Your task to perform on an android device: turn on the 24-hour format for clock Image 0: 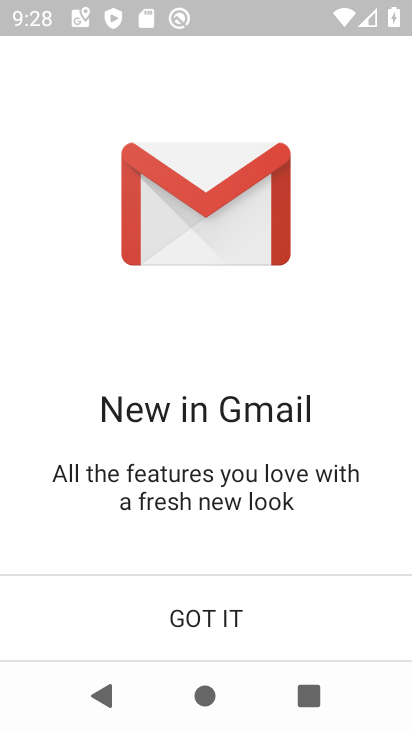
Step 0: press home button
Your task to perform on an android device: turn on the 24-hour format for clock Image 1: 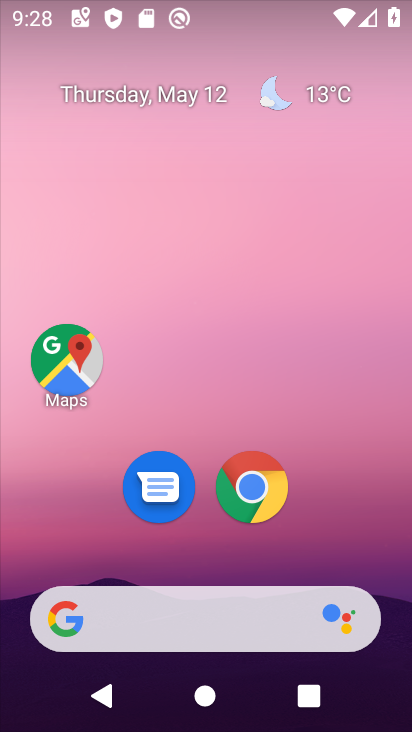
Step 1: drag from (245, 366) to (234, 94)
Your task to perform on an android device: turn on the 24-hour format for clock Image 2: 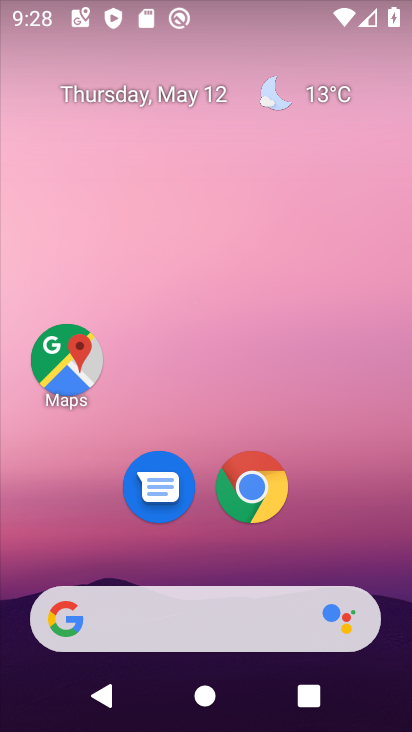
Step 2: drag from (212, 574) to (237, 101)
Your task to perform on an android device: turn on the 24-hour format for clock Image 3: 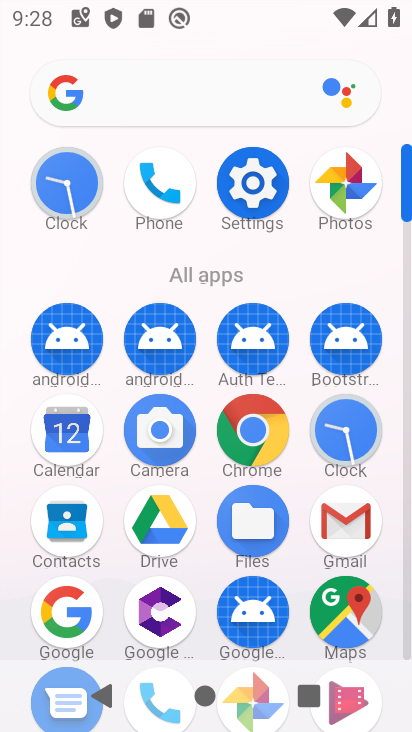
Step 3: click (69, 188)
Your task to perform on an android device: turn on the 24-hour format for clock Image 4: 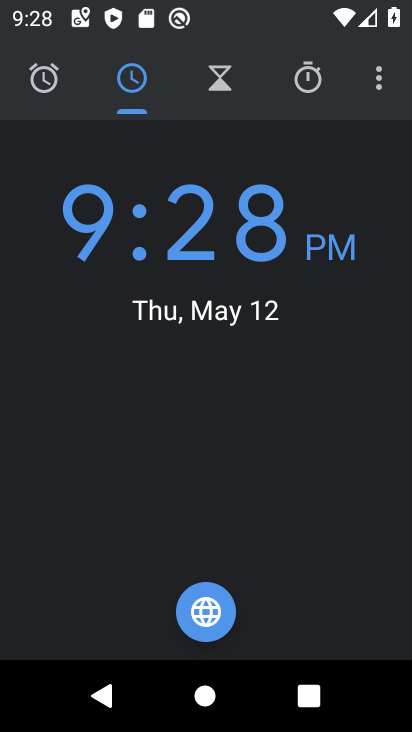
Step 4: click (389, 79)
Your task to perform on an android device: turn on the 24-hour format for clock Image 5: 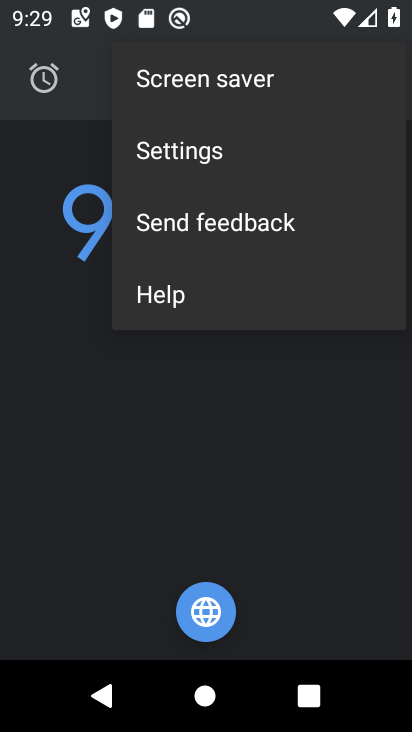
Step 5: click (298, 144)
Your task to perform on an android device: turn on the 24-hour format for clock Image 6: 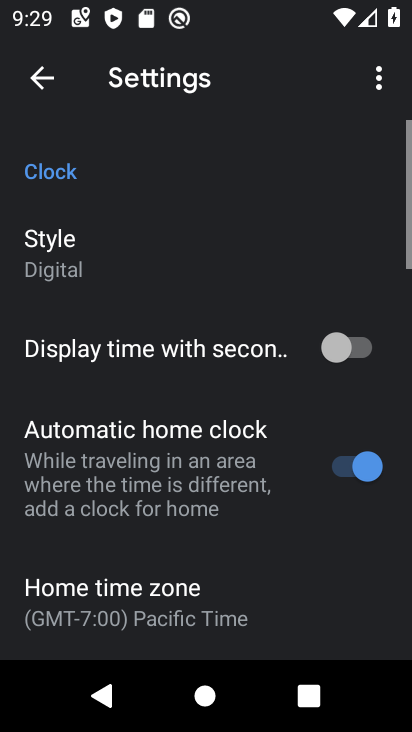
Step 6: drag from (120, 621) to (229, 219)
Your task to perform on an android device: turn on the 24-hour format for clock Image 7: 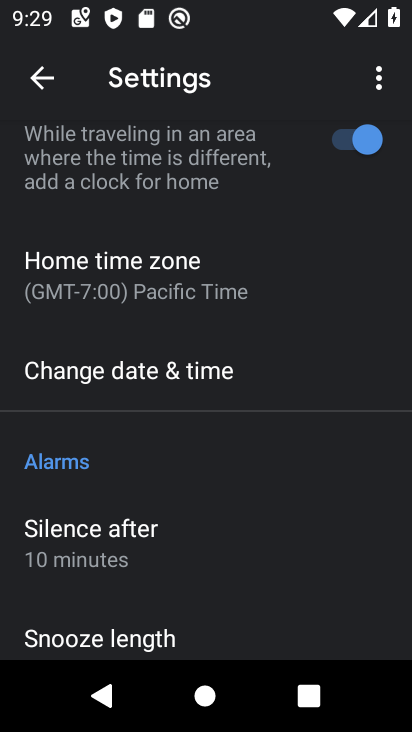
Step 7: drag from (121, 576) to (262, 132)
Your task to perform on an android device: turn on the 24-hour format for clock Image 8: 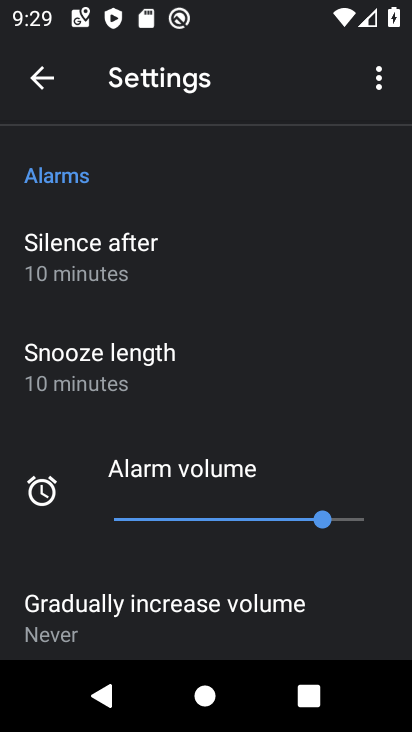
Step 8: drag from (230, 175) to (250, 607)
Your task to perform on an android device: turn on the 24-hour format for clock Image 9: 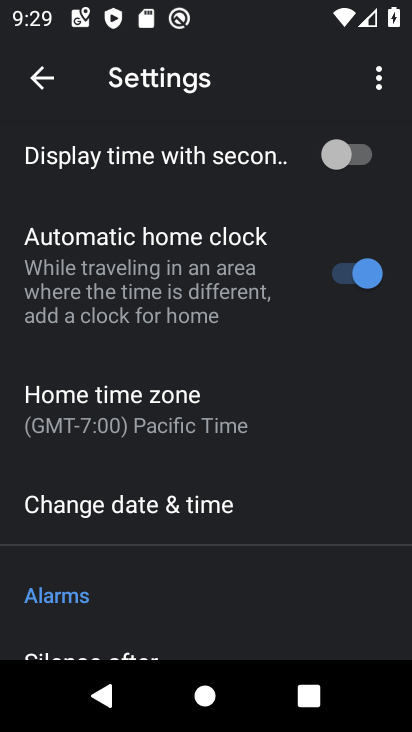
Step 9: click (155, 507)
Your task to perform on an android device: turn on the 24-hour format for clock Image 10: 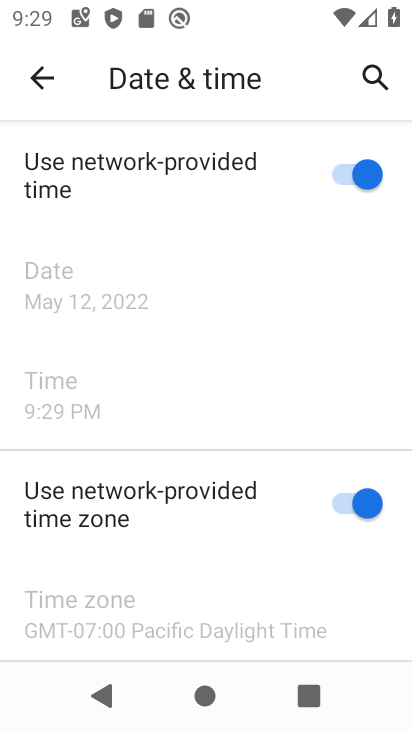
Step 10: click (155, 507)
Your task to perform on an android device: turn on the 24-hour format for clock Image 11: 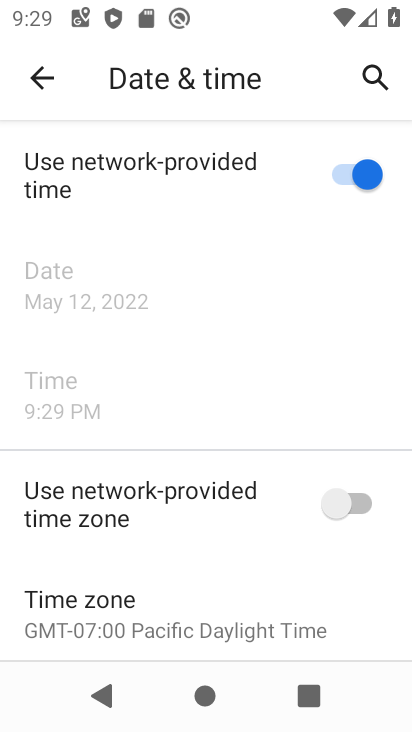
Step 11: drag from (160, 538) to (287, 166)
Your task to perform on an android device: turn on the 24-hour format for clock Image 12: 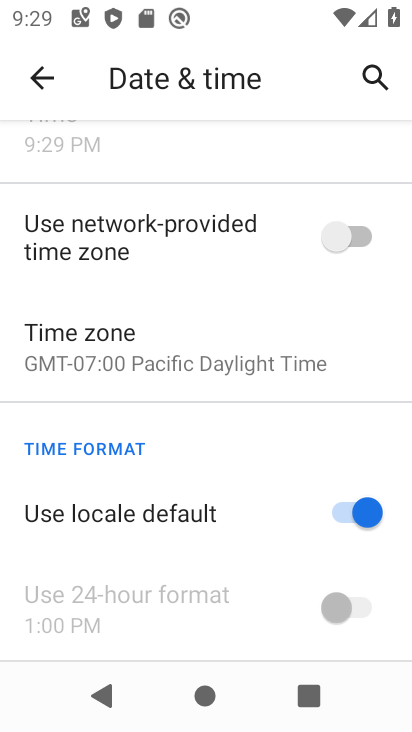
Step 12: click (365, 524)
Your task to perform on an android device: turn on the 24-hour format for clock Image 13: 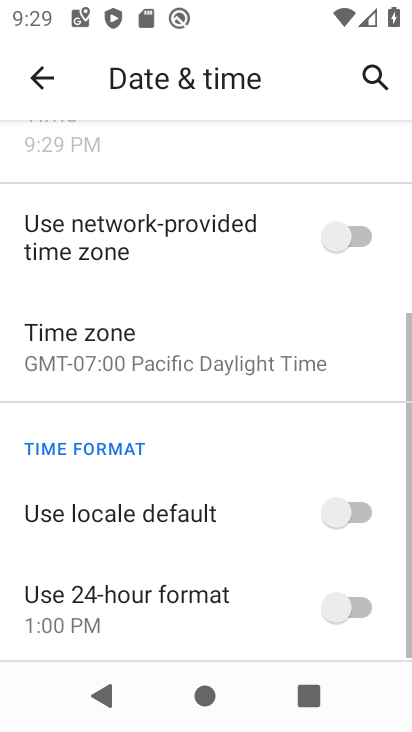
Step 13: click (361, 612)
Your task to perform on an android device: turn on the 24-hour format for clock Image 14: 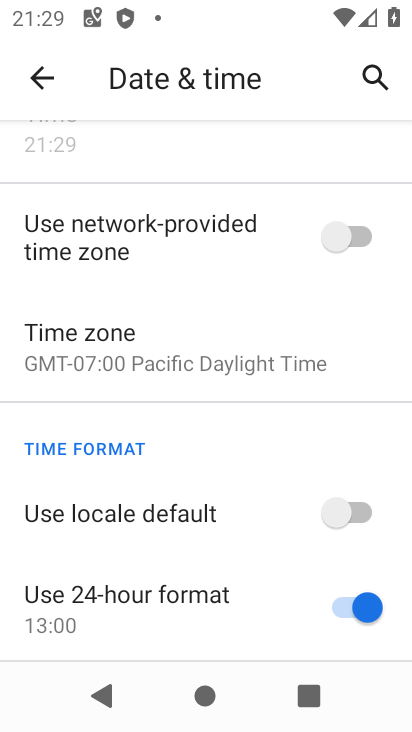
Step 14: task complete